Your task to perform on an android device: empty trash in google photos Image 0: 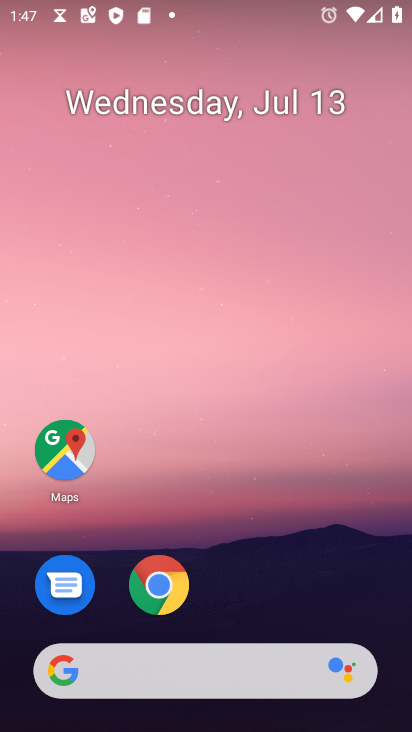
Step 0: press home button
Your task to perform on an android device: empty trash in google photos Image 1: 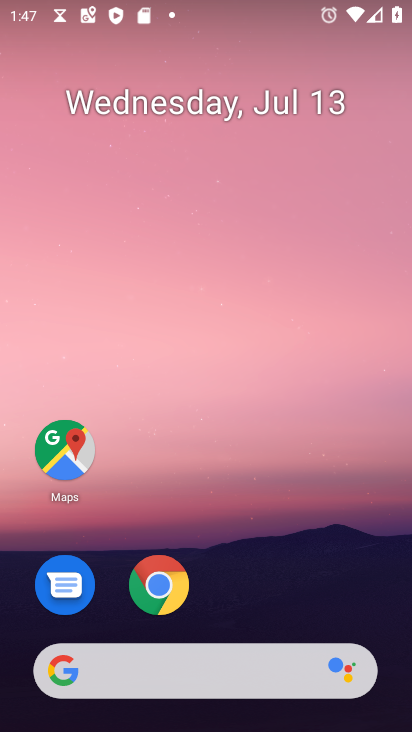
Step 1: drag from (224, 668) to (338, 67)
Your task to perform on an android device: empty trash in google photos Image 2: 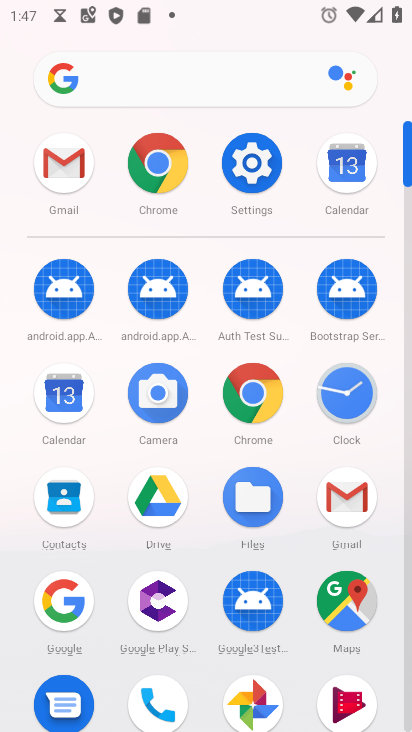
Step 2: drag from (201, 621) to (277, 363)
Your task to perform on an android device: empty trash in google photos Image 3: 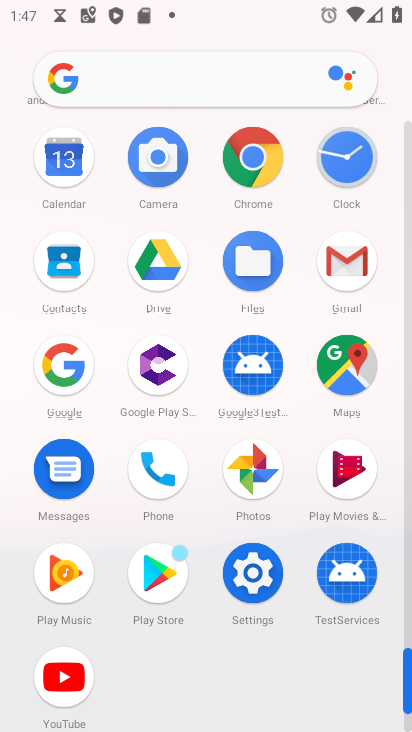
Step 3: click (262, 475)
Your task to perform on an android device: empty trash in google photos Image 4: 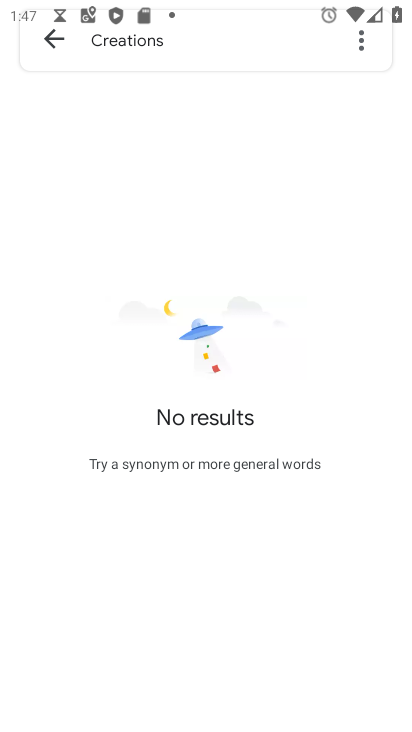
Step 4: click (57, 36)
Your task to perform on an android device: empty trash in google photos Image 5: 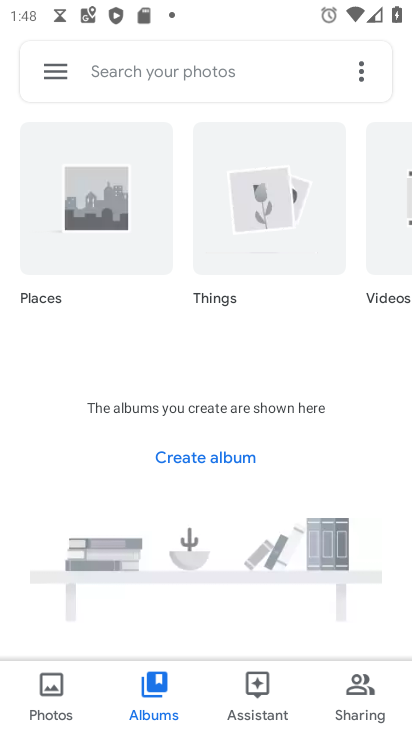
Step 5: click (53, 71)
Your task to perform on an android device: empty trash in google photos Image 6: 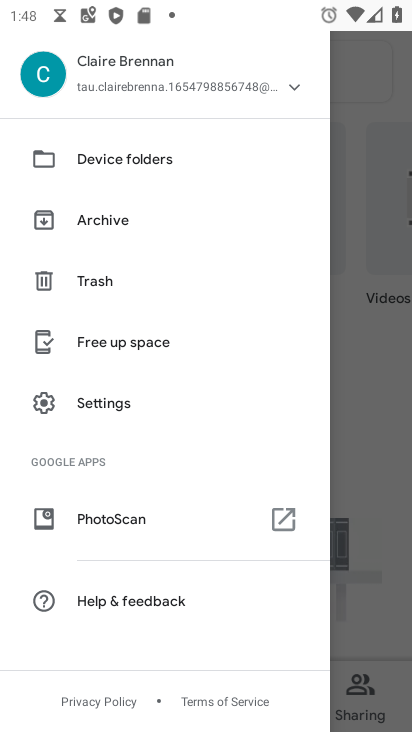
Step 6: click (104, 288)
Your task to perform on an android device: empty trash in google photos Image 7: 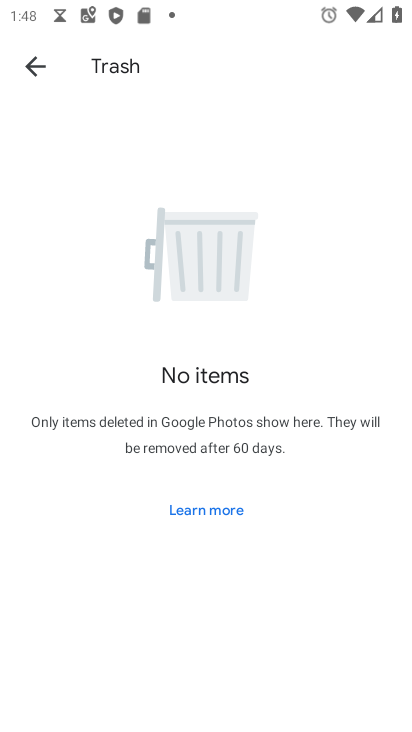
Step 7: task complete